Your task to perform on an android device: Add "logitech g pro" to the cart on costco Image 0: 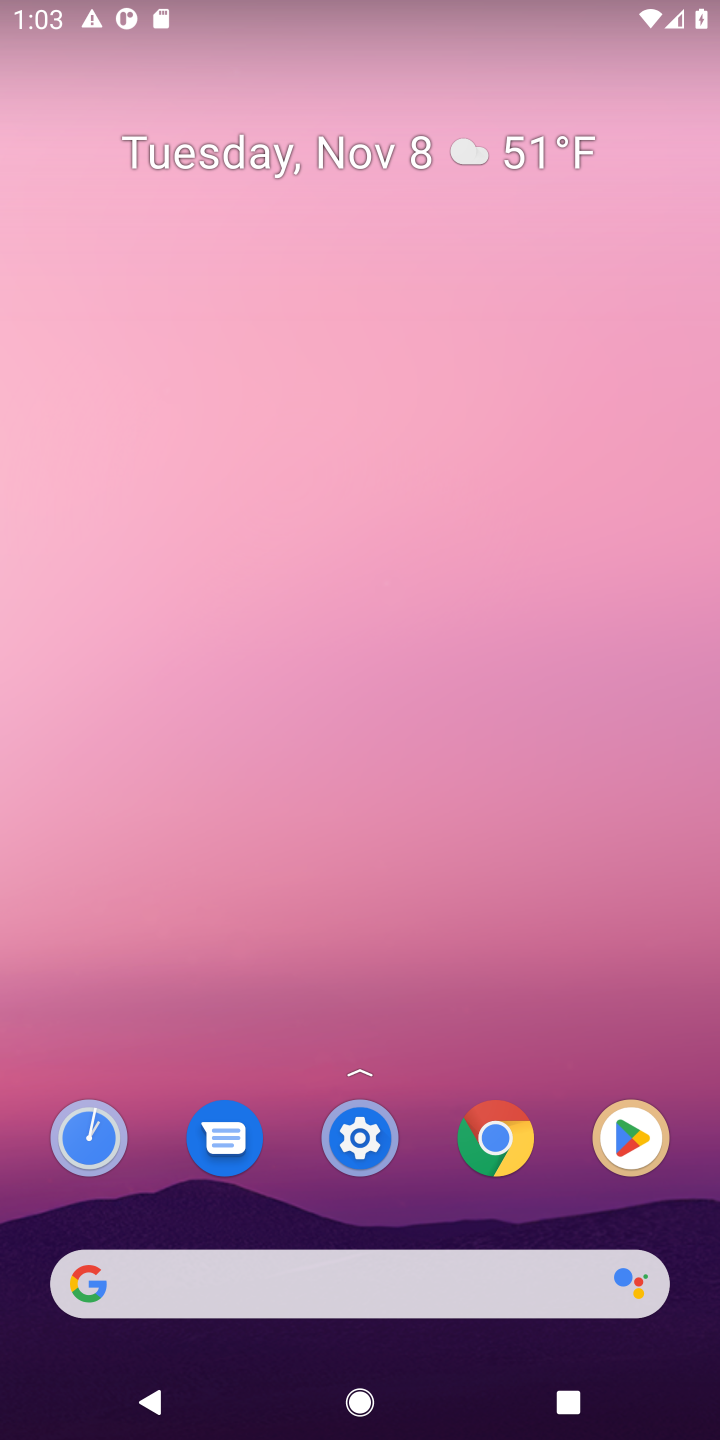
Step 0: click (310, 1305)
Your task to perform on an android device: Add "logitech g pro" to the cart on costco Image 1: 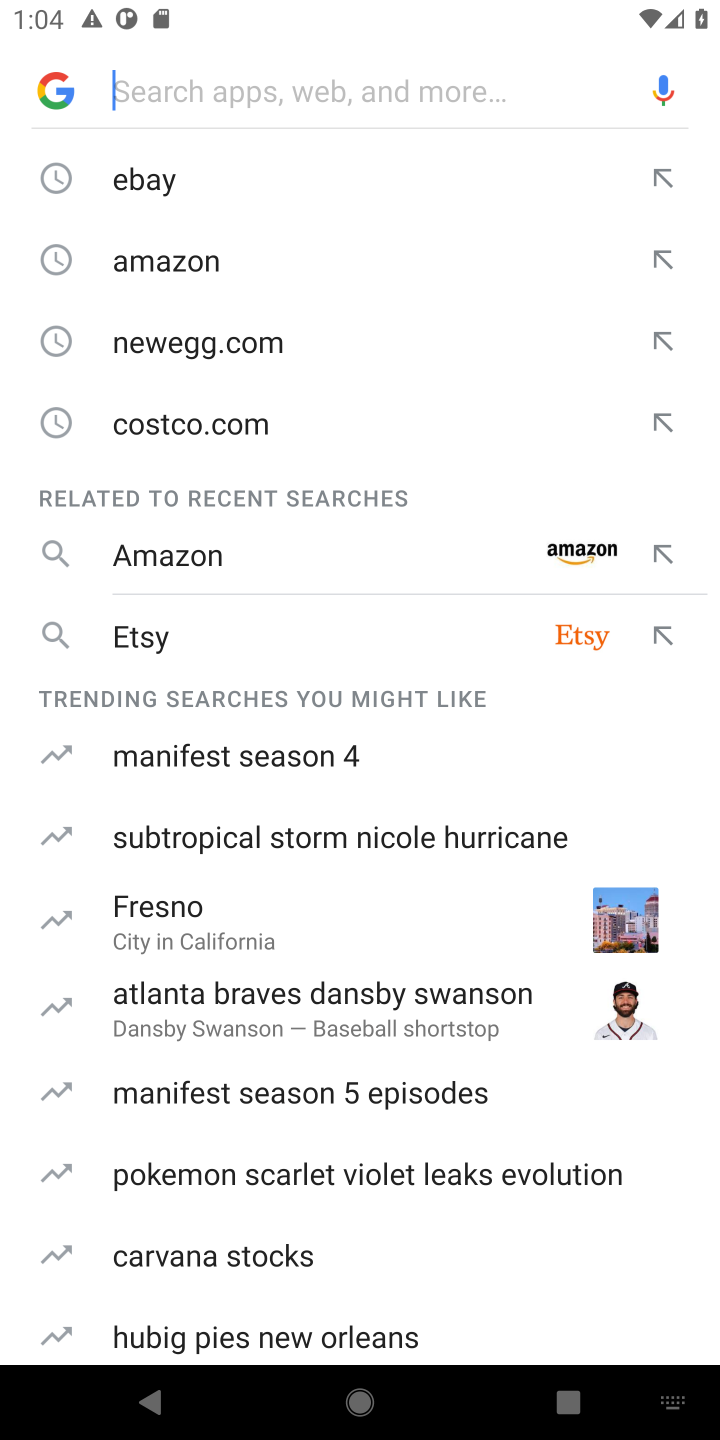
Step 1: click (206, 428)
Your task to perform on an android device: Add "logitech g pro" to the cart on costco Image 2: 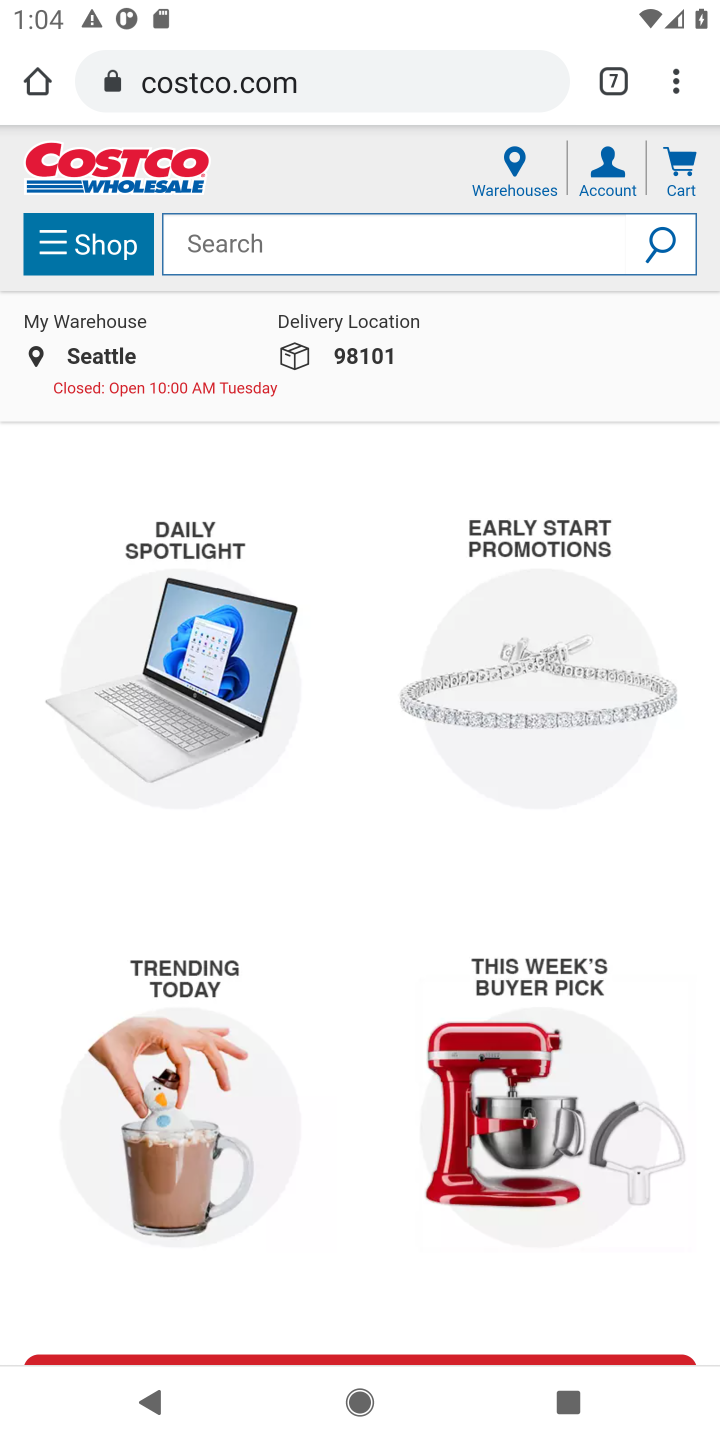
Step 2: task complete